Your task to perform on an android device: Go to Google Image 0: 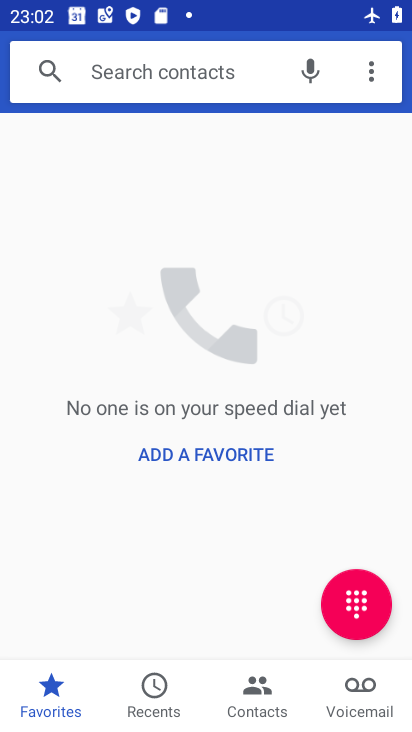
Step 0: press home button
Your task to perform on an android device: Go to Google Image 1: 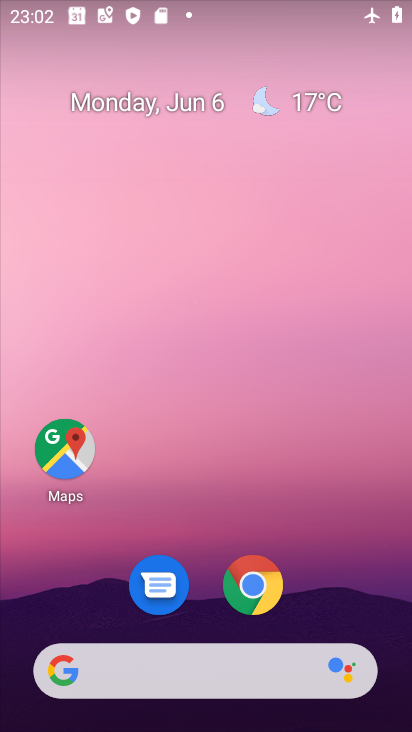
Step 1: click (168, 666)
Your task to perform on an android device: Go to Google Image 2: 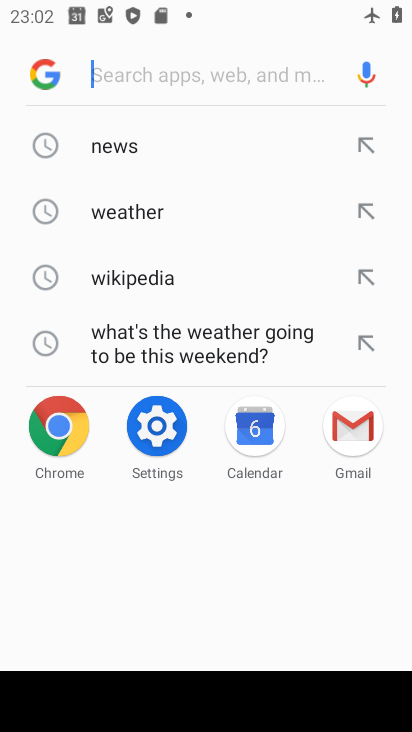
Step 2: click (44, 83)
Your task to perform on an android device: Go to Google Image 3: 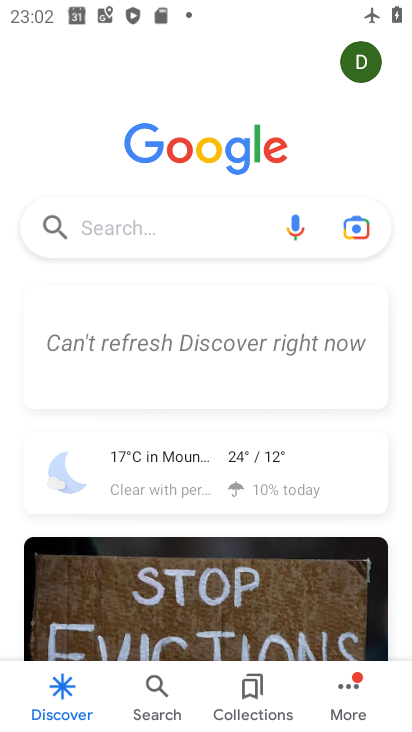
Step 3: task complete